Your task to perform on an android device: Open the web browser Image 0: 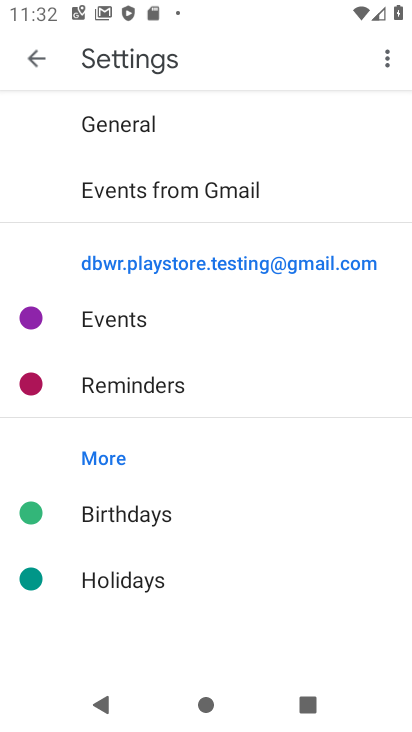
Step 0: drag from (245, 580) to (272, 138)
Your task to perform on an android device: Open the web browser Image 1: 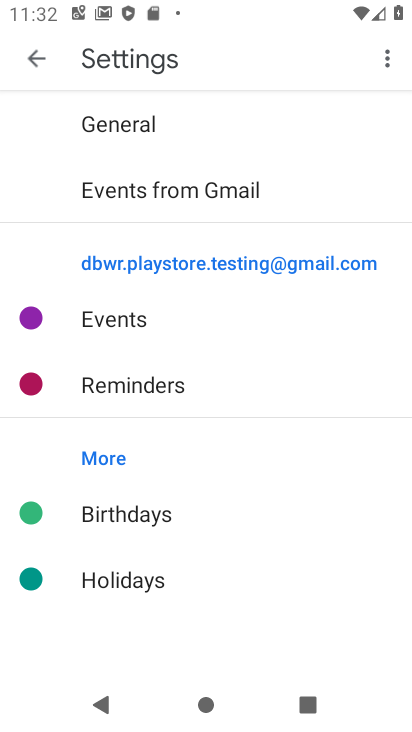
Step 1: press home button
Your task to perform on an android device: Open the web browser Image 2: 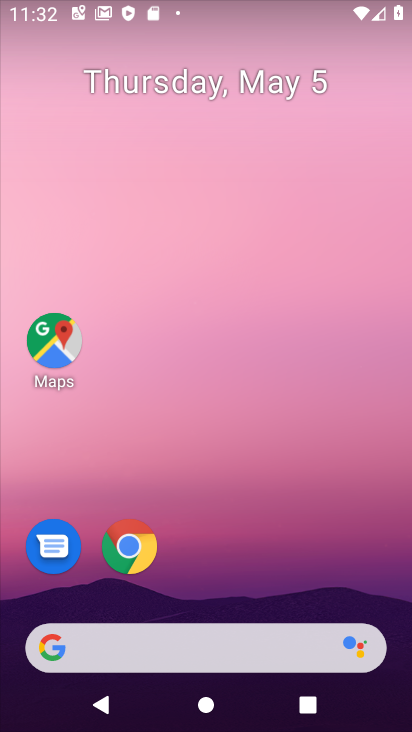
Step 2: click (121, 536)
Your task to perform on an android device: Open the web browser Image 3: 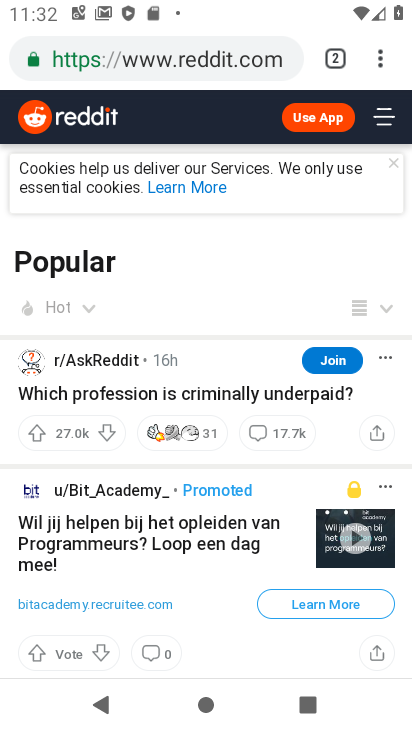
Step 3: task complete